Your task to perform on an android device: Go to location settings Image 0: 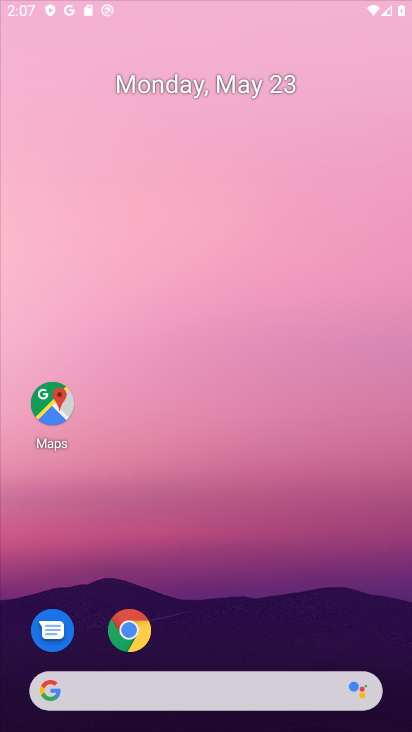
Step 0: drag from (354, 22) to (312, 148)
Your task to perform on an android device: Go to location settings Image 1: 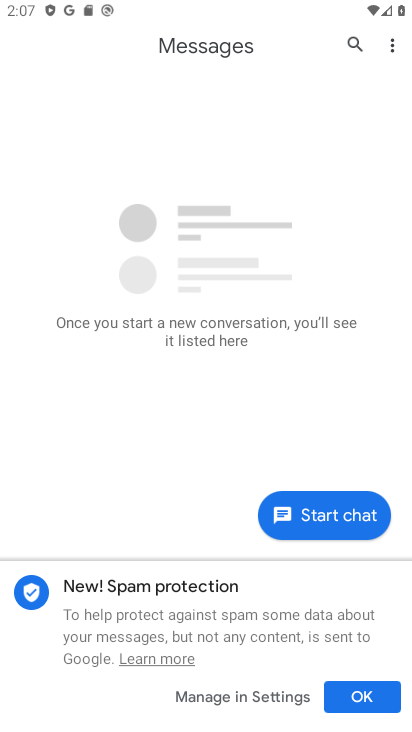
Step 1: press home button
Your task to perform on an android device: Go to location settings Image 2: 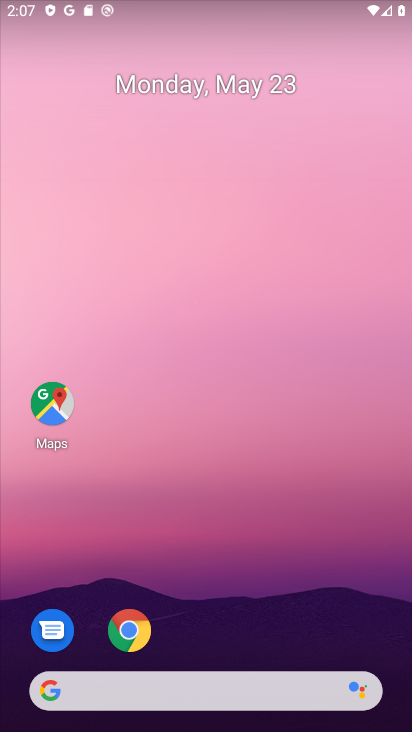
Step 2: drag from (327, 584) to (345, 16)
Your task to perform on an android device: Go to location settings Image 3: 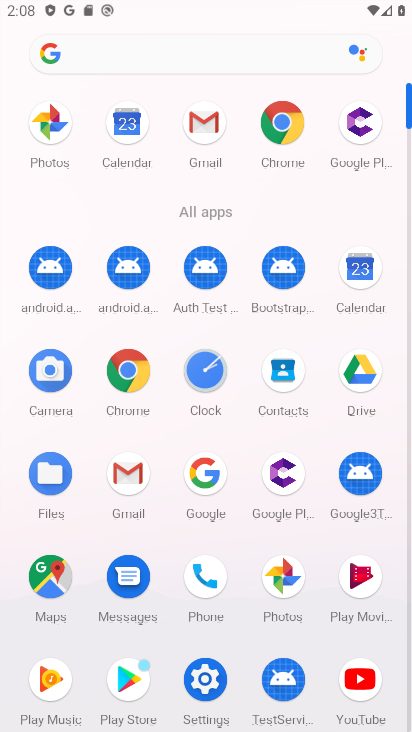
Step 3: click (190, 666)
Your task to perform on an android device: Go to location settings Image 4: 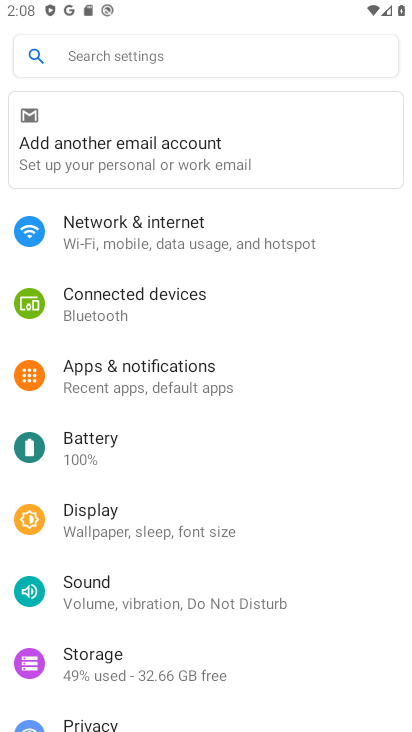
Step 4: drag from (174, 622) to (179, 148)
Your task to perform on an android device: Go to location settings Image 5: 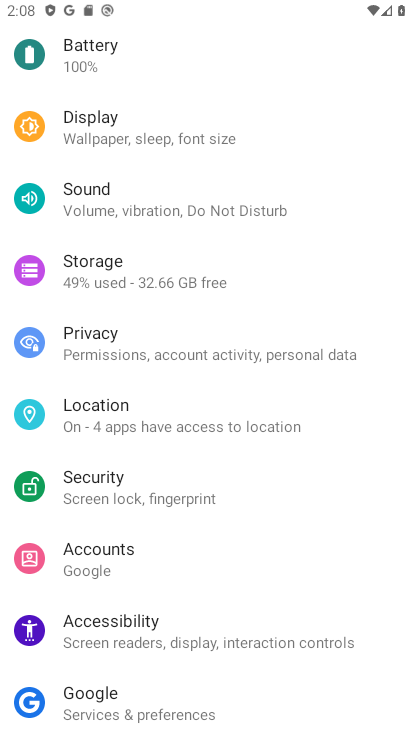
Step 5: click (128, 420)
Your task to perform on an android device: Go to location settings Image 6: 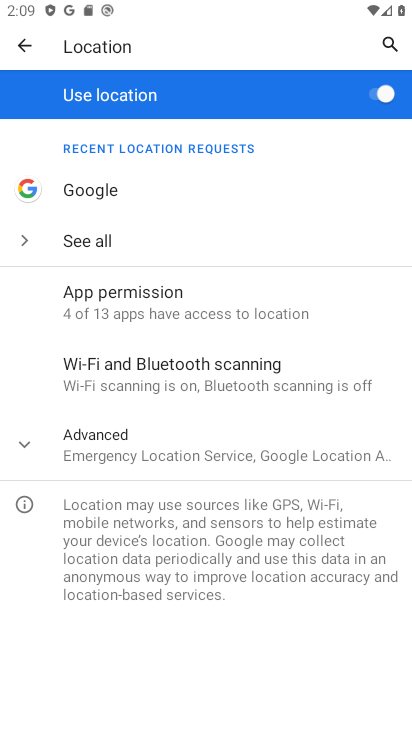
Step 6: task complete